Your task to perform on an android device: turn off javascript in the chrome app Image 0: 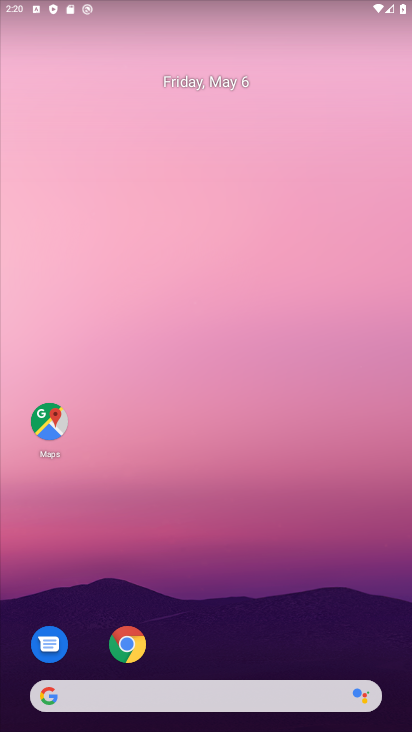
Step 0: click (125, 639)
Your task to perform on an android device: turn off javascript in the chrome app Image 1: 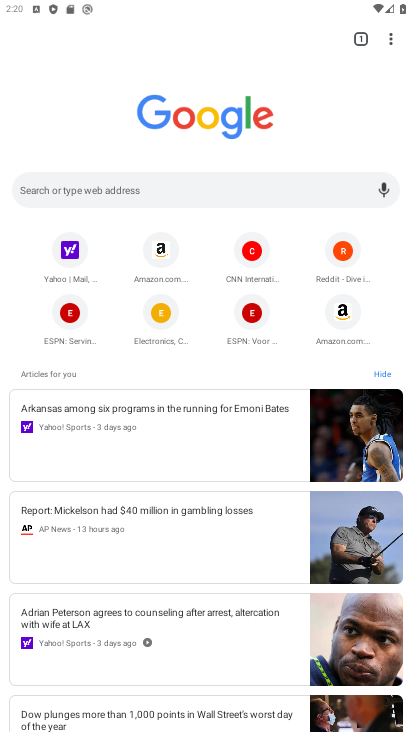
Step 1: drag from (389, 29) to (274, 327)
Your task to perform on an android device: turn off javascript in the chrome app Image 2: 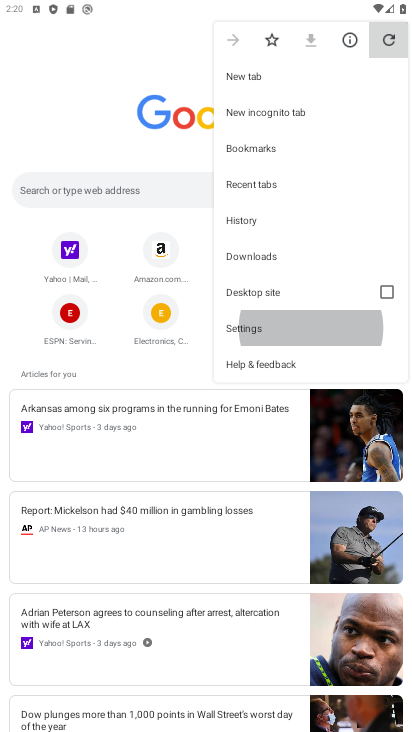
Step 2: drag from (387, 39) to (274, 327)
Your task to perform on an android device: turn off javascript in the chrome app Image 3: 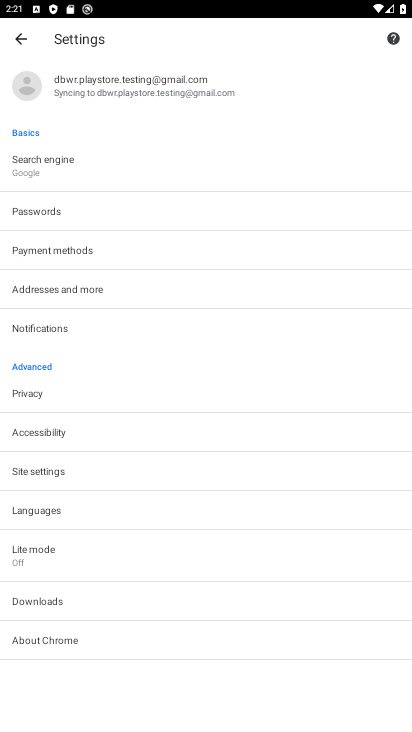
Step 3: click (78, 474)
Your task to perform on an android device: turn off javascript in the chrome app Image 4: 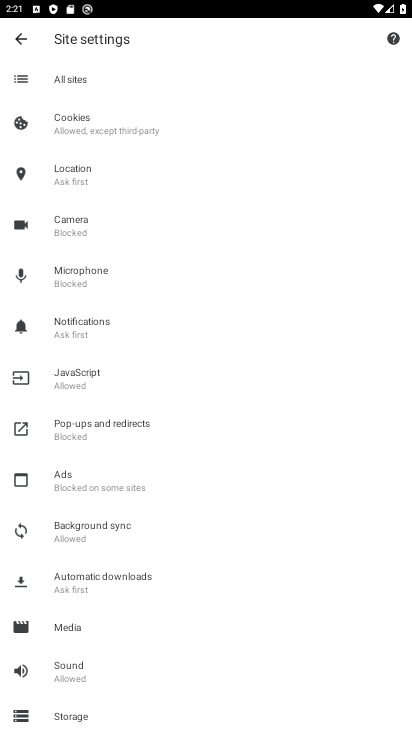
Step 4: click (110, 378)
Your task to perform on an android device: turn off javascript in the chrome app Image 5: 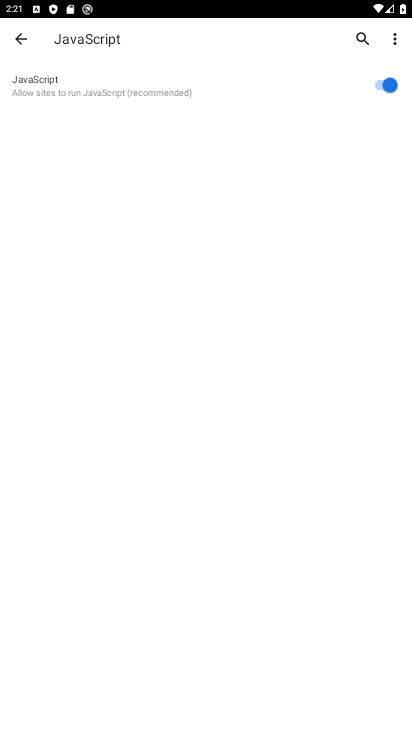
Step 5: click (391, 88)
Your task to perform on an android device: turn off javascript in the chrome app Image 6: 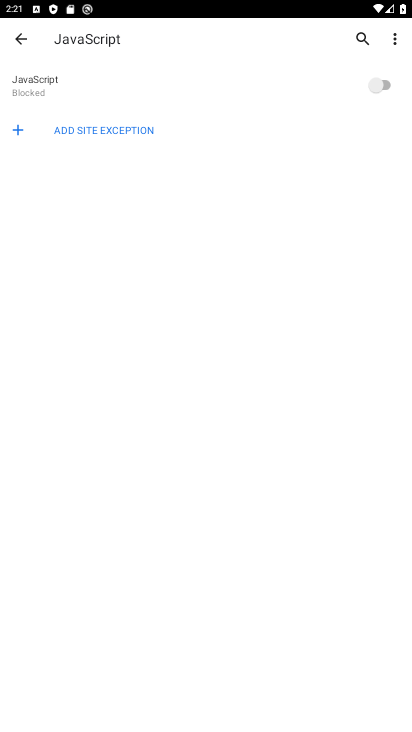
Step 6: task complete